Your task to perform on an android device: uninstall "Facebook Lite" Image 0: 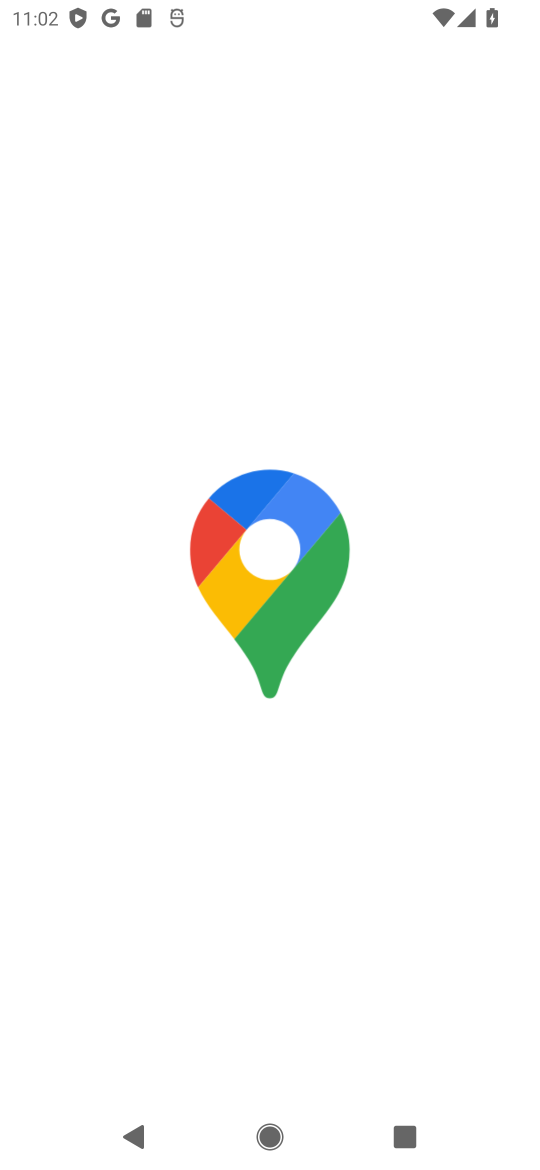
Step 0: press back button
Your task to perform on an android device: uninstall "Facebook Lite" Image 1: 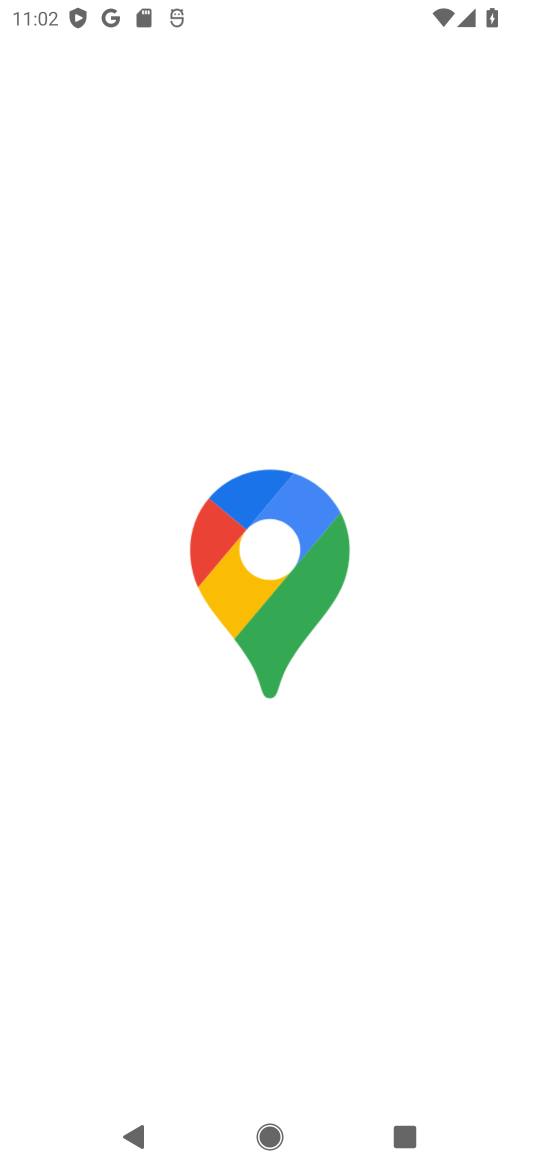
Step 1: press back button
Your task to perform on an android device: uninstall "Facebook Lite" Image 2: 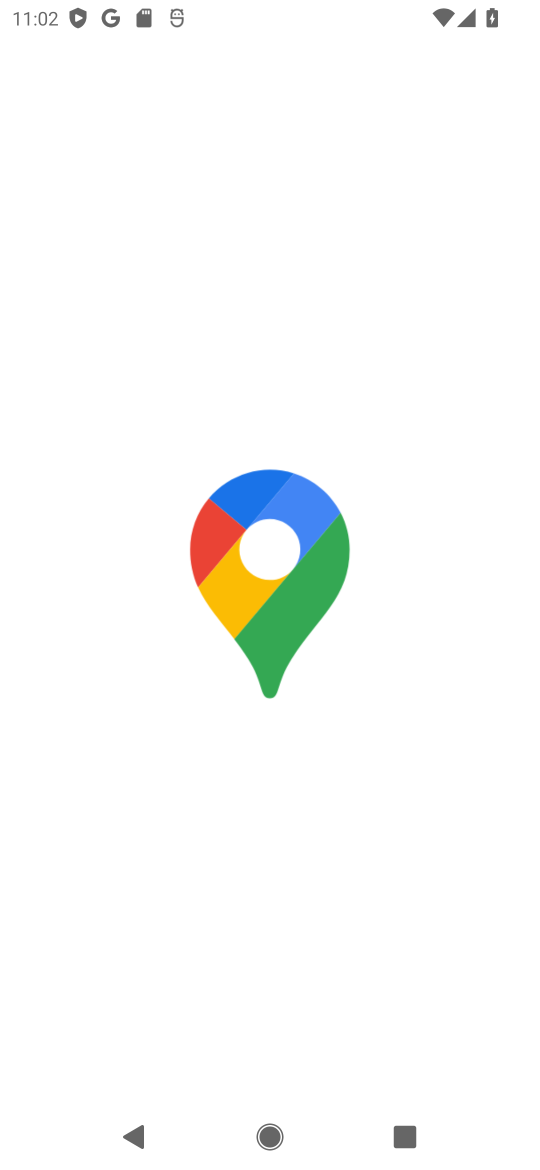
Step 2: press home button
Your task to perform on an android device: uninstall "Facebook Lite" Image 3: 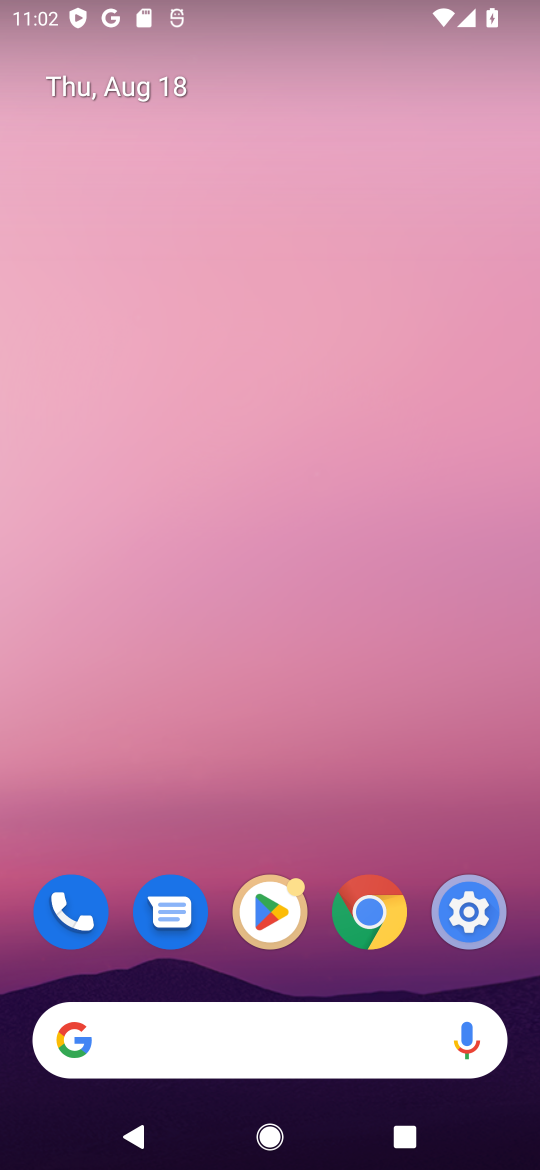
Step 3: click (267, 908)
Your task to perform on an android device: uninstall "Facebook Lite" Image 4: 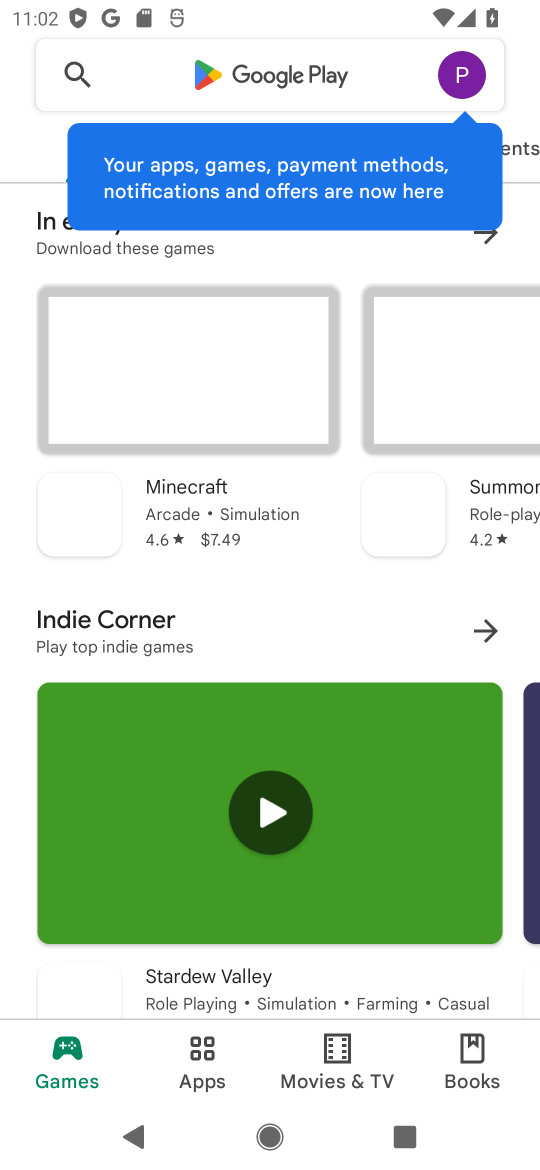
Step 4: click (254, 70)
Your task to perform on an android device: uninstall "Facebook Lite" Image 5: 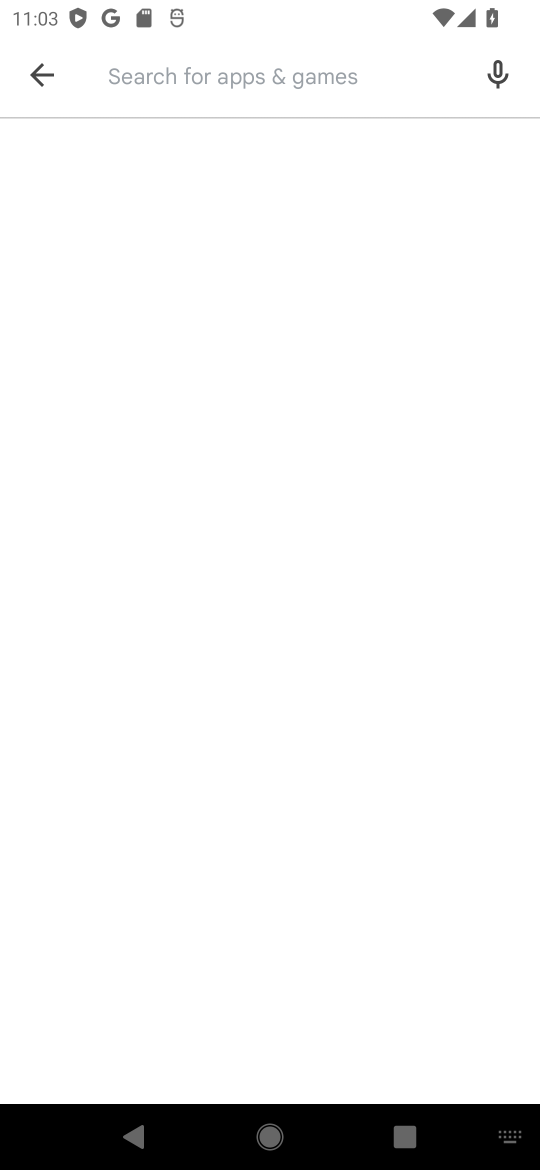
Step 5: click (228, 81)
Your task to perform on an android device: uninstall "Facebook Lite" Image 6: 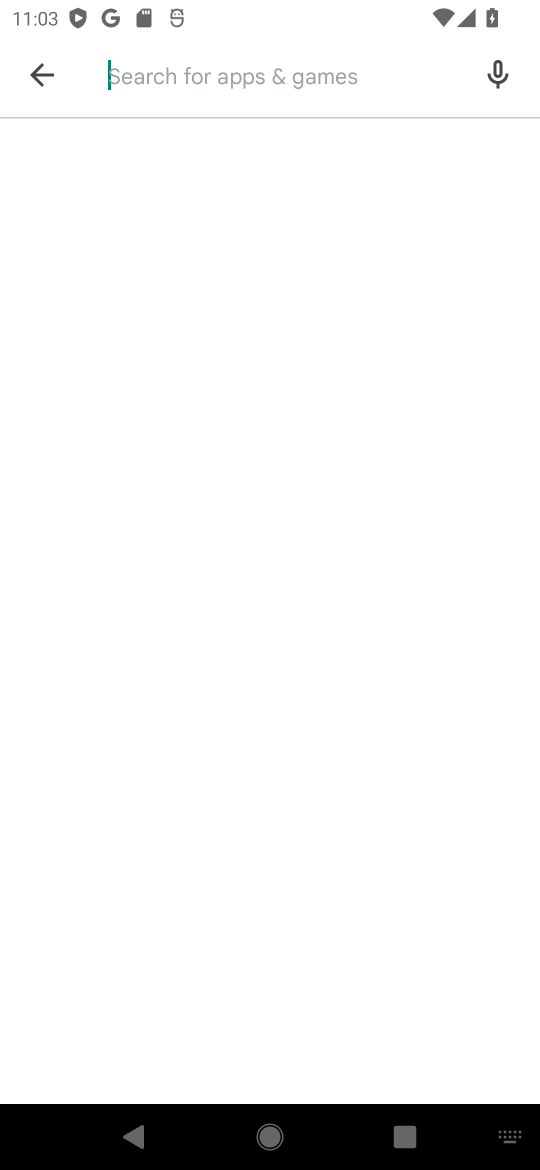
Step 6: type "Facebook Lite"
Your task to perform on an android device: uninstall "Facebook Lite" Image 7: 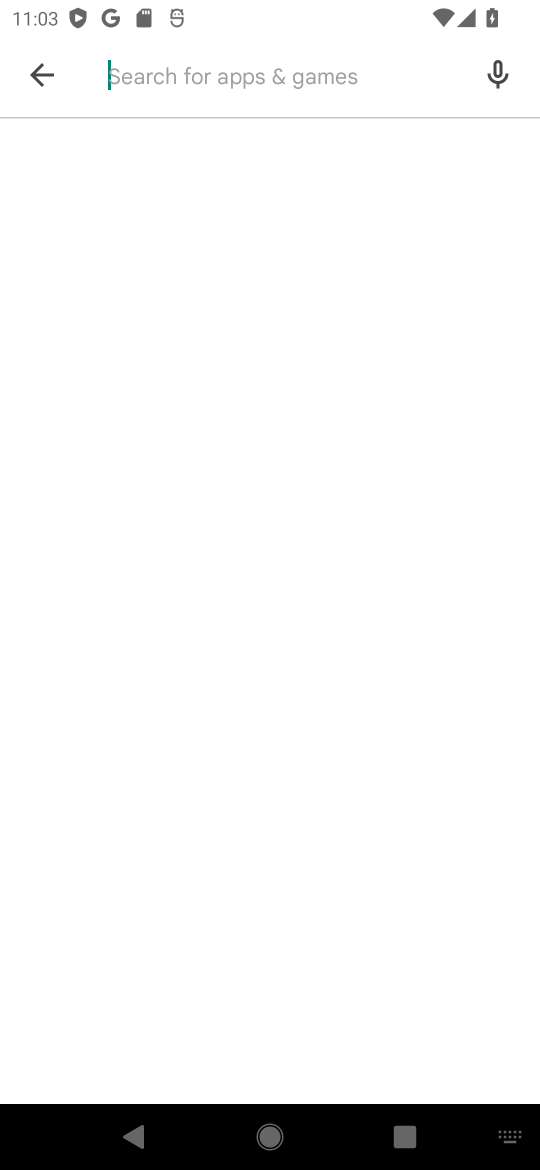
Step 7: click (291, 518)
Your task to perform on an android device: uninstall "Facebook Lite" Image 8: 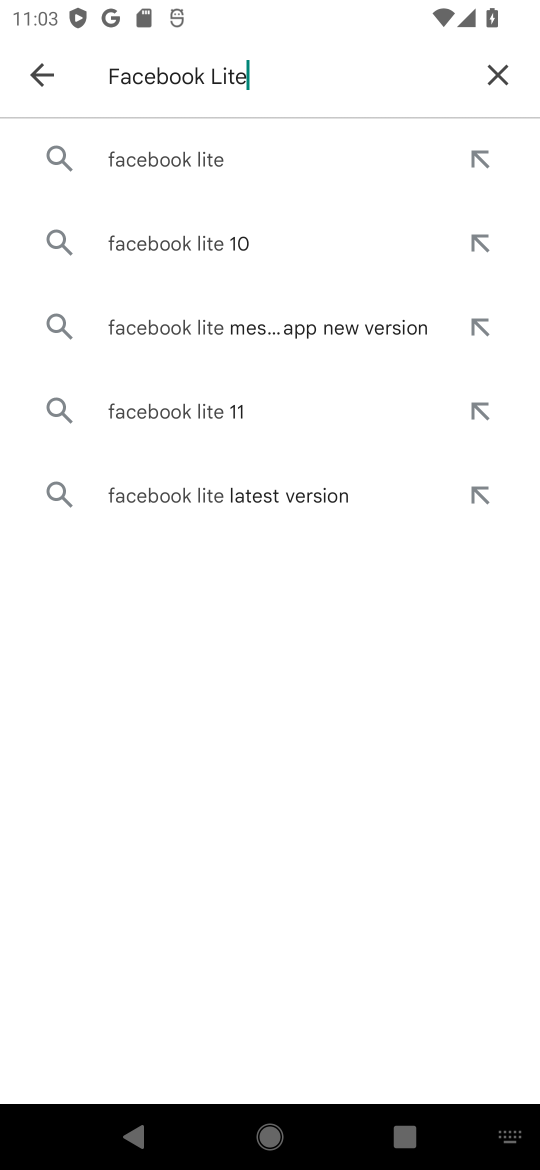
Step 8: click (210, 148)
Your task to perform on an android device: uninstall "Facebook Lite" Image 9: 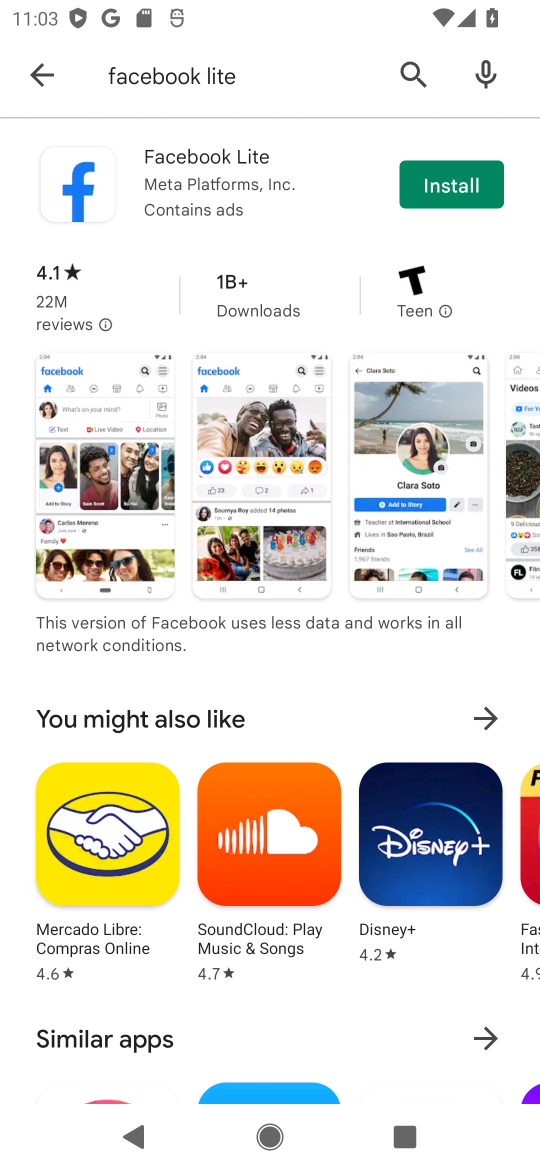
Step 9: click (213, 178)
Your task to perform on an android device: uninstall "Facebook Lite" Image 10: 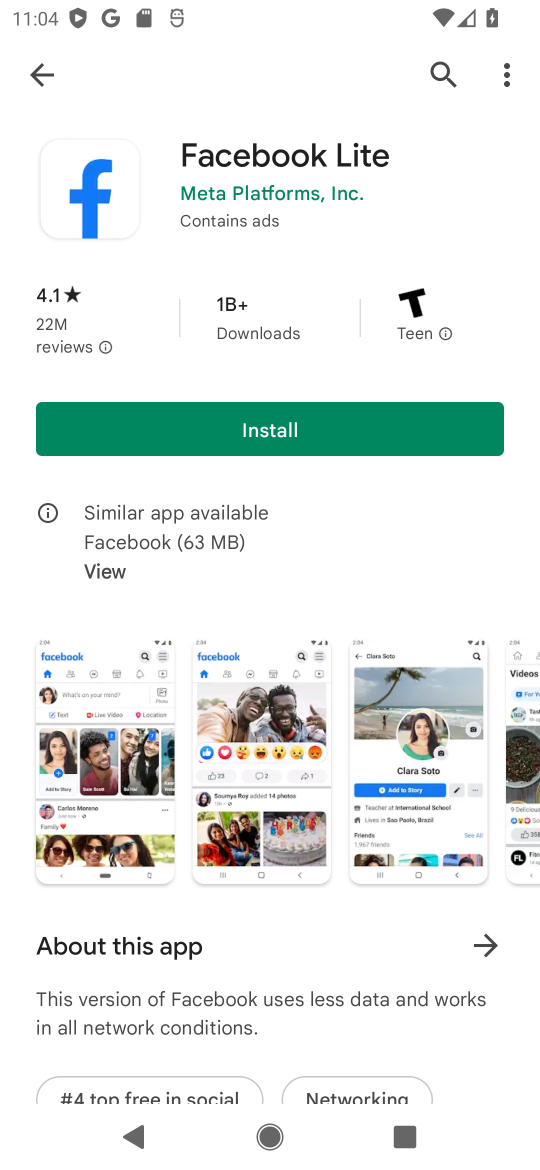
Step 10: task complete